Your task to perform on an android device: Open location settings Image 0: 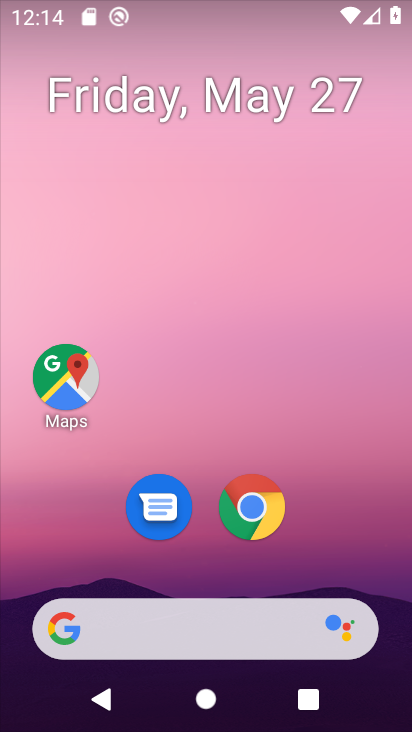
Step 0: drag from (69, 599) to (210, 156)
Your task to perform on an android device: Open location settings Image 1: 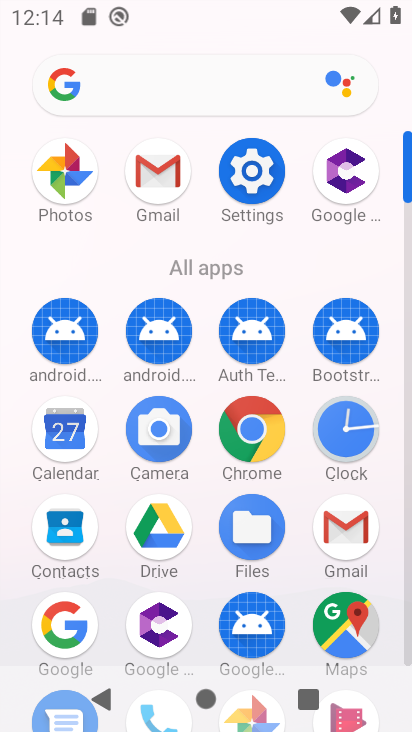
Step 1: click (244, 183)
Your task to perform on an android device: Open location settings Image 2: 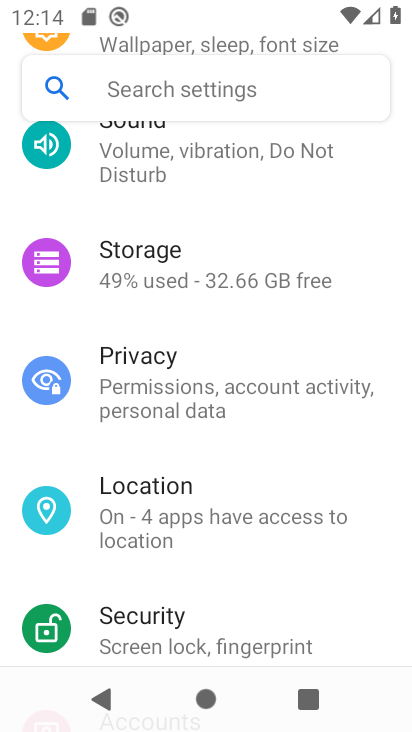
Step 2: click (205, 543)
Your task to perform on an android device: Open location settings Image 3: 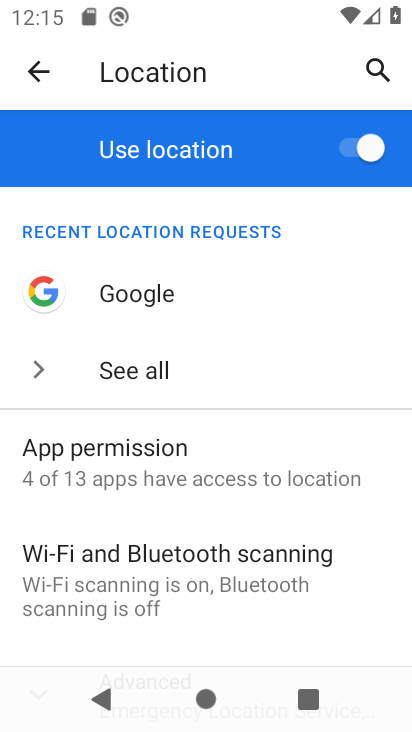
Step 3: task complete